Your task to perform on an android device: Show me popular videos on Youtube Image 0: 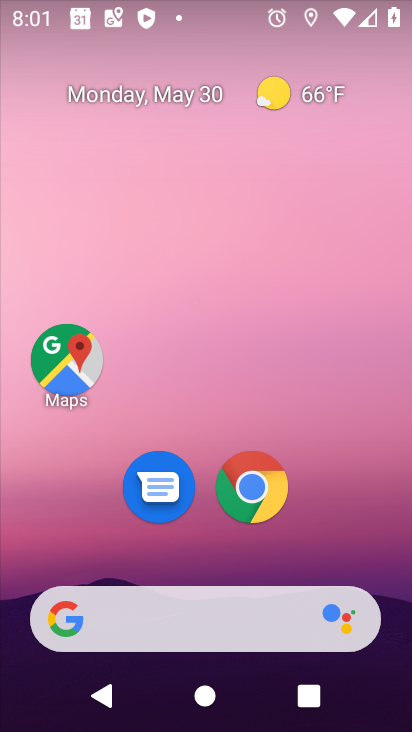
Step 0: drag from (313, 562) to (284, 47)
Your task to perform on an android device: Show me popular videos on Youtube Image 1: 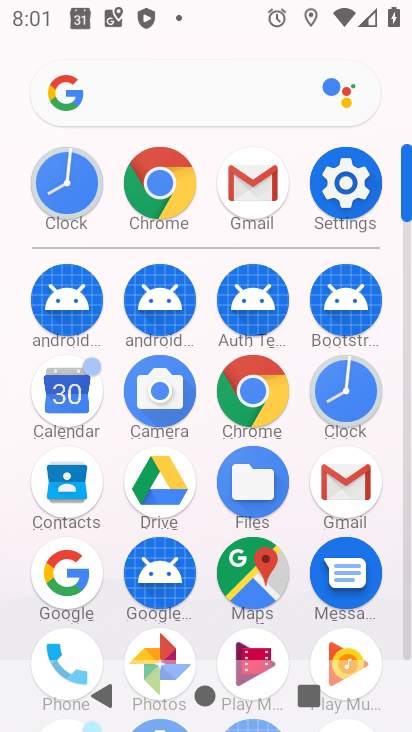
Step 1: drag from (390, 627) to (393, 68)
Your task to perform on an android device: Show me popular videos on Youtube Image 2: 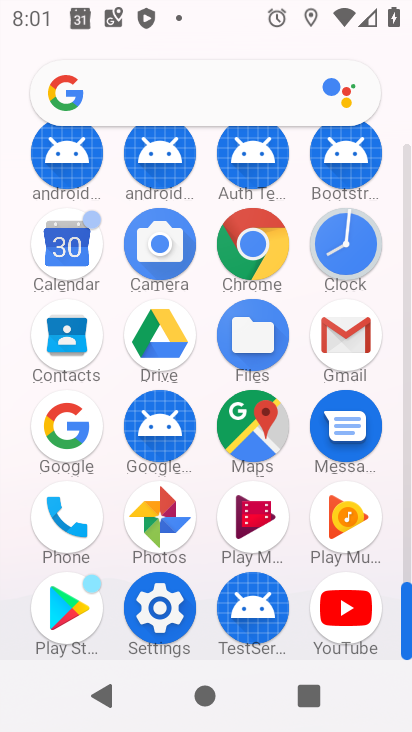
Step 2: click (339, 604)
Your task to perform on an android device: Show me popular videos on Youtube Image 3: 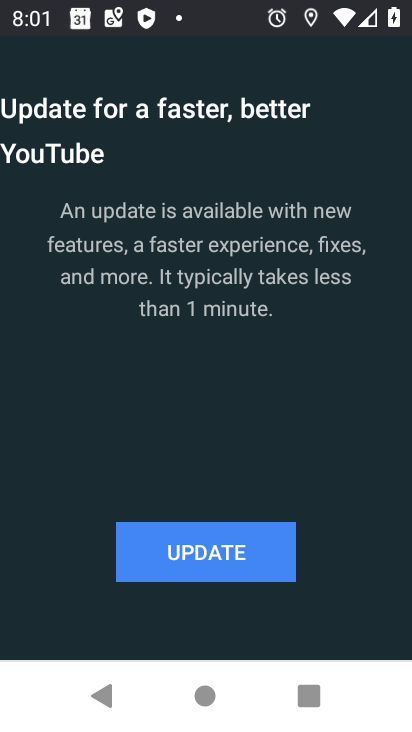
Step 3: click (207, 550)
Your task to perform on an android device: Show me popular videos on Youtube Image 4: 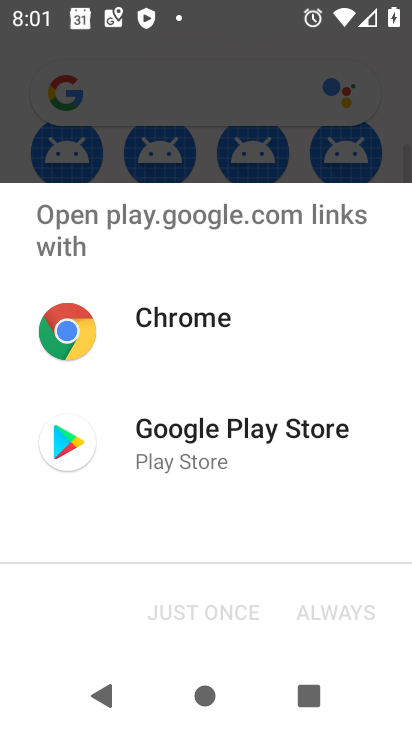
Step 4: click (159, 435)
Your task to perform on an android device: Show me popular videos on Youtube Image 5: 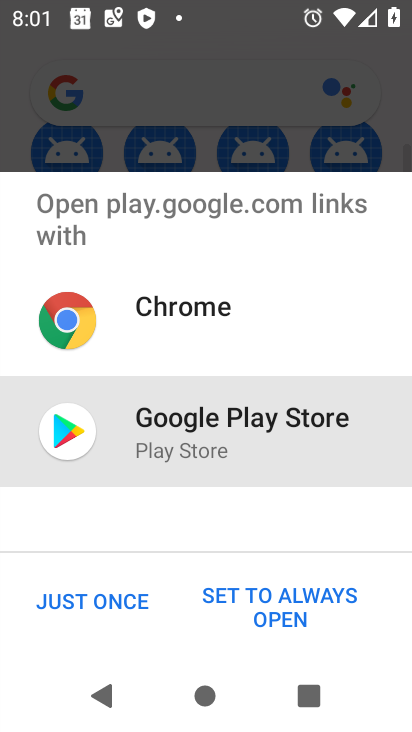
Step 5: click (92, 605)
Your task to perform on an android device: Show me popular videos on Youtube Image 6: 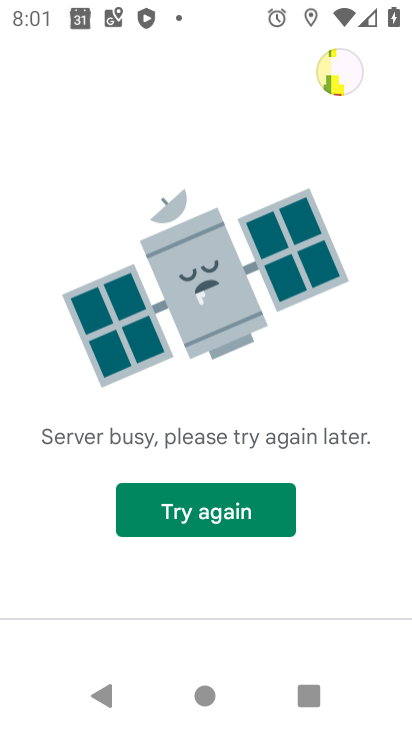
Step 6: click (198, 501)
Your task to perform on an android device: Show me popular videos on Youtube Image 7: 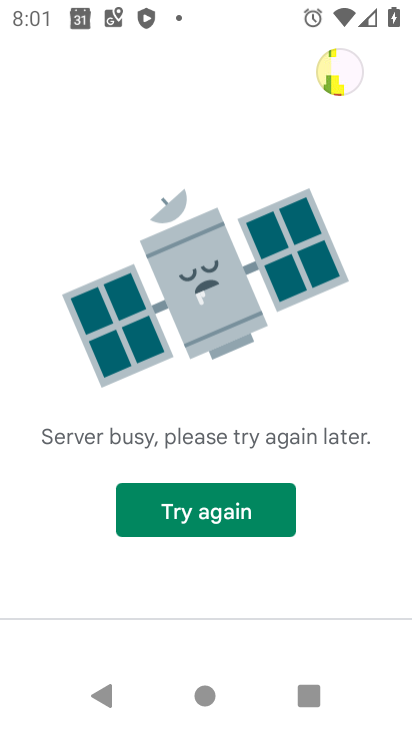
Step 7: click (199, 500)
Your task to perform on an android device: Show me popular videos on Youtube Image 8: 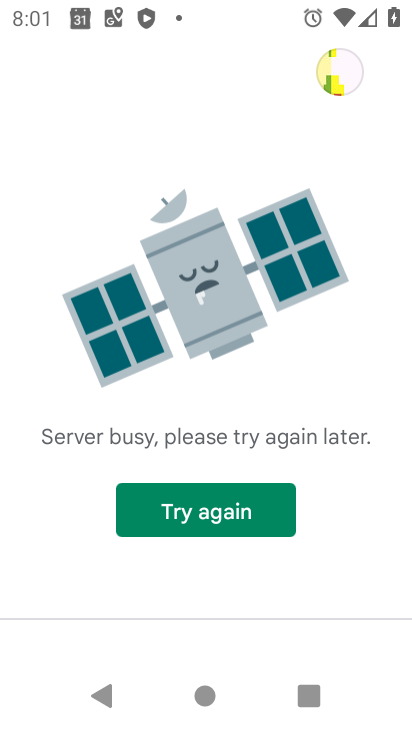
Step 8: click (217, 518)
Your task to perform on an android device: Show me popular videos on Youtube Image 9: 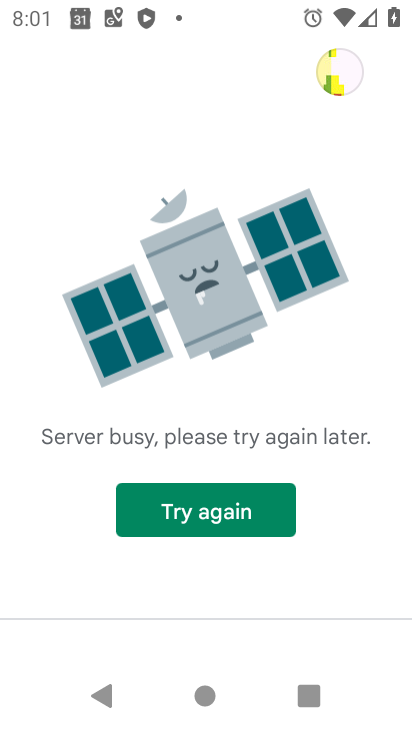
Step 9: task complete